Your task to perform on an android device: change the clock display to show seconds Image 0: 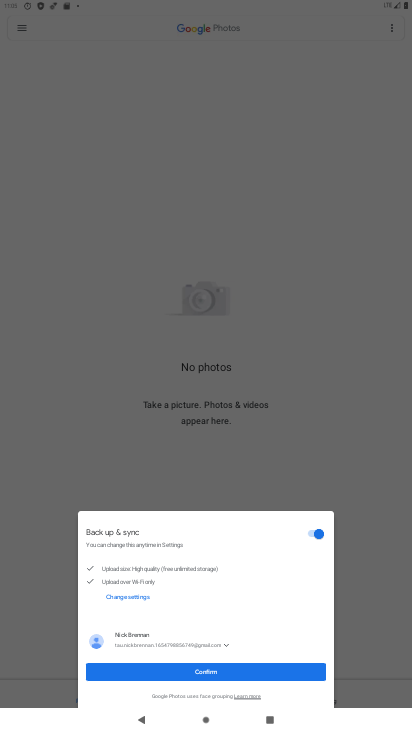
Step 0: press home button
Your task to perform on an android device: change the clock display to show seconds Image 1: 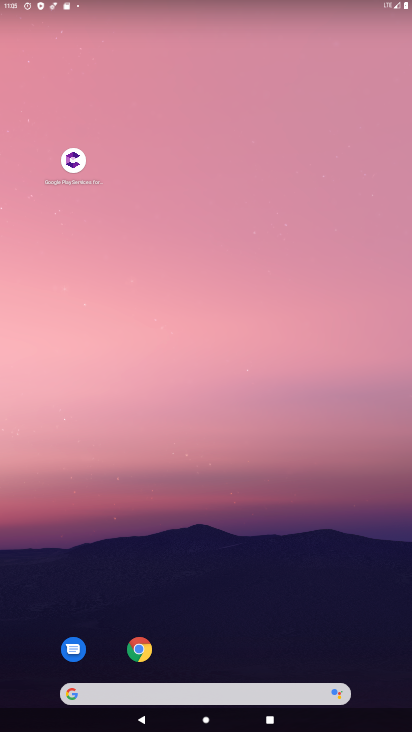
Step 1: drag from (170, 691) to (155, 275)
Your task to perform on an android device: change the clock display to show seconds Image 2: 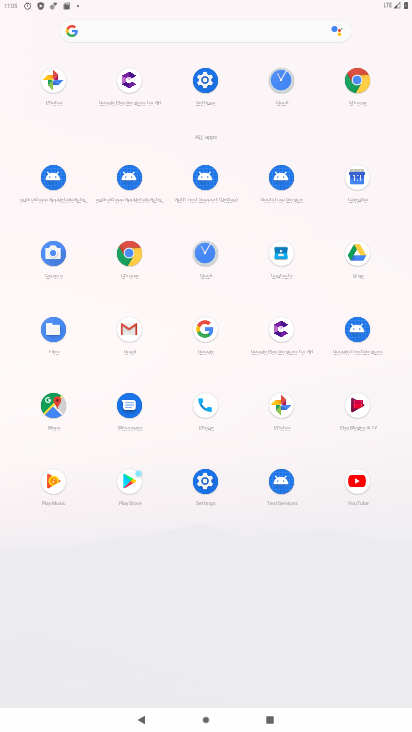
Step 2: click (282, 82)
Your task to perform on an android device: change the clock display to show seconds Image 3: 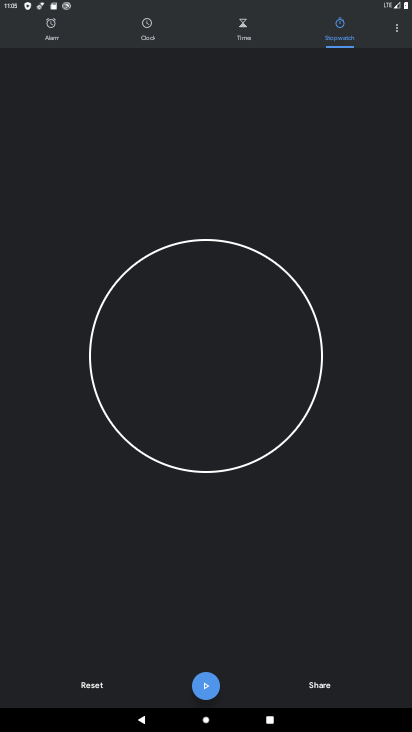
Step 3: click (399, 32)
Your task to perform on an android device: change the clock display to show seconds Image 4: 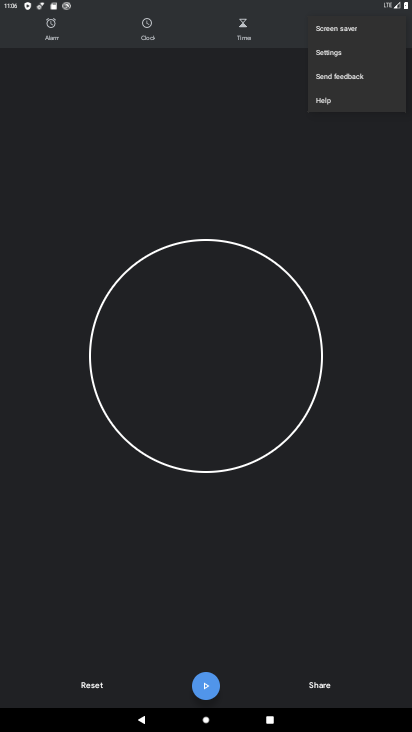
Step 4: click (338, 51)
Your task to perform on an android device: change the clock display to show seconds Image 5: 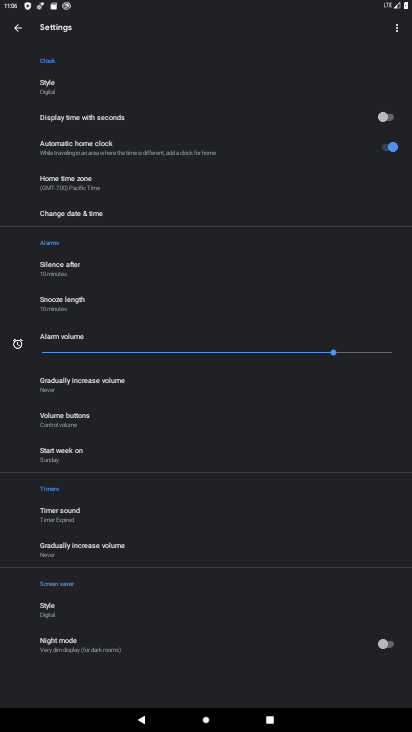
Step 5: click (391, 117)
Your task to perform on an android device: change the clock display to show seconds Image 6: 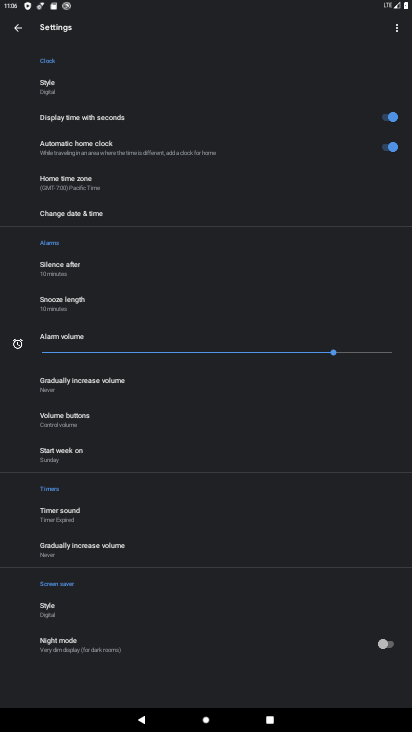
Step 6: task complete